Your task to perform on an android device: create a new album in the google photos Image 0: 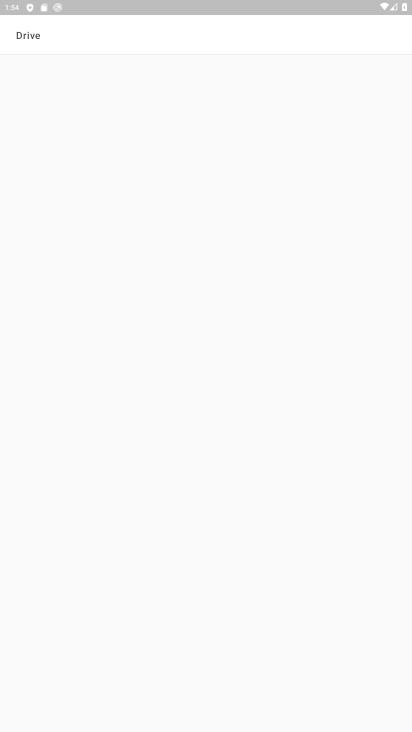
Step 0: press home button
Your task to perform on an android device: create a new album in the google photos Image 1: 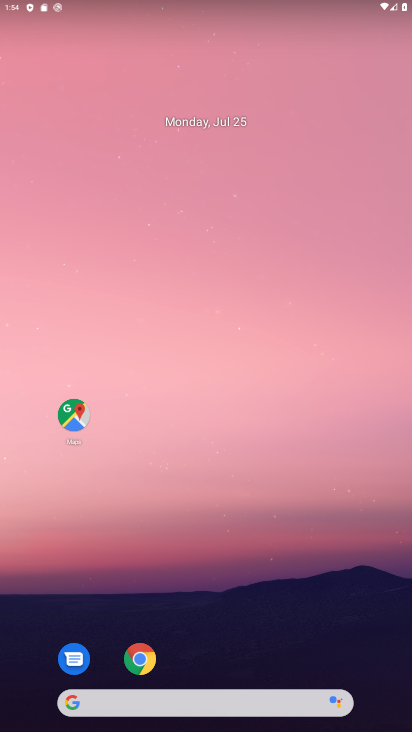
Step 1: drag from (211, 675) to (238, 3)
Your task to perform on an android device: create a new album in the google photos Image 2: 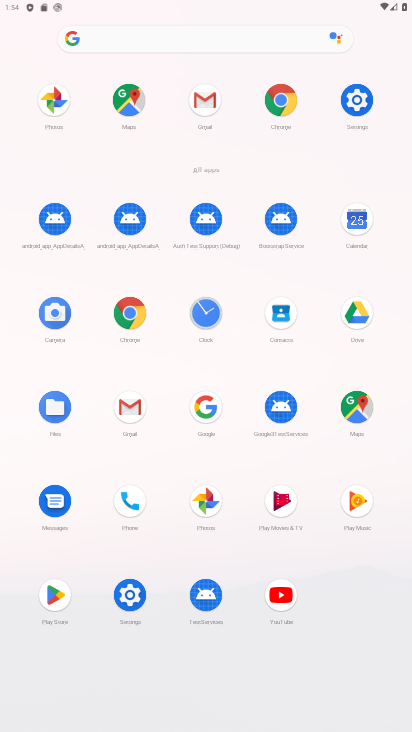
Step 2: click (205, 510)
Your task to perform on an android device: create a new album in the google photos Image 3: 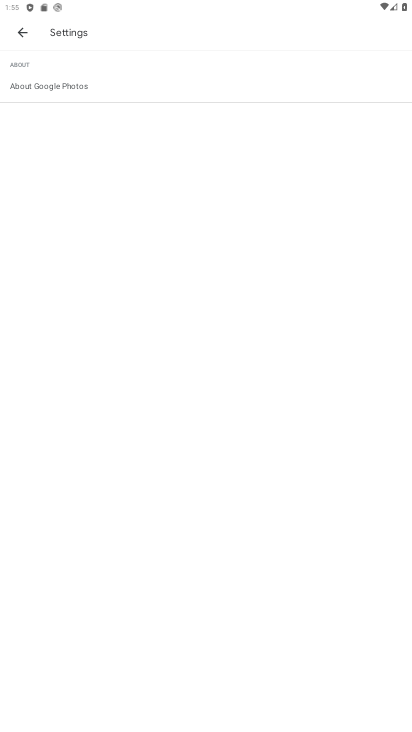
Step 3: click (20, 37)
Your task to perform on an android device: create a new album in the google photos Image 4: 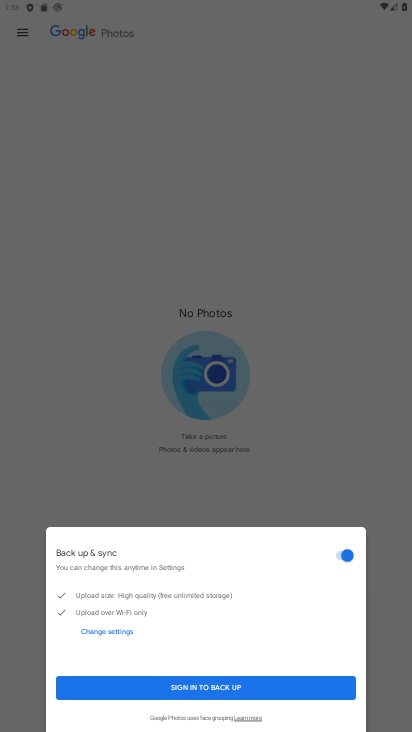
Step 4: click (217, 688)
Your task to perform on an android device: create a new album in the google photos Image 5: 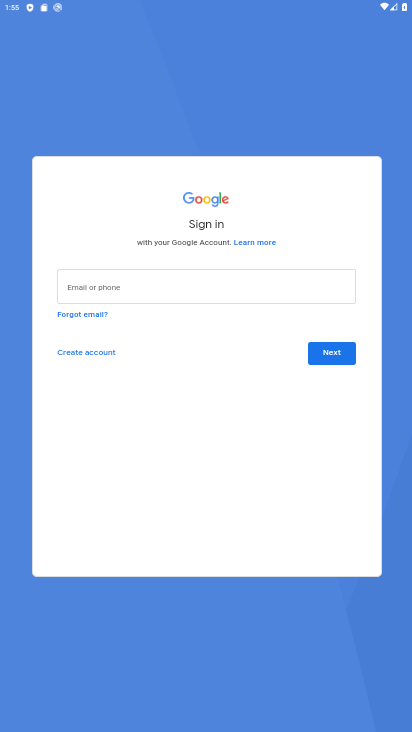
Step 5: task complete